Your task to perform on an android device: Go to sound settings Image 0: 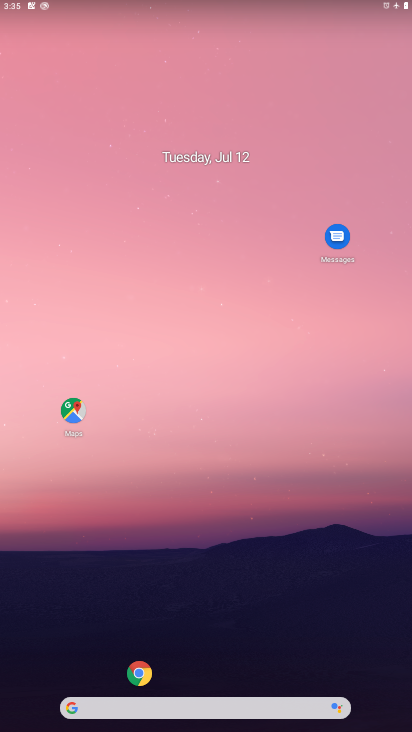
Step 0: drag from (79, 546) to (396, 108)
Your task to perform on an android device: Go to sound settings Image 1: 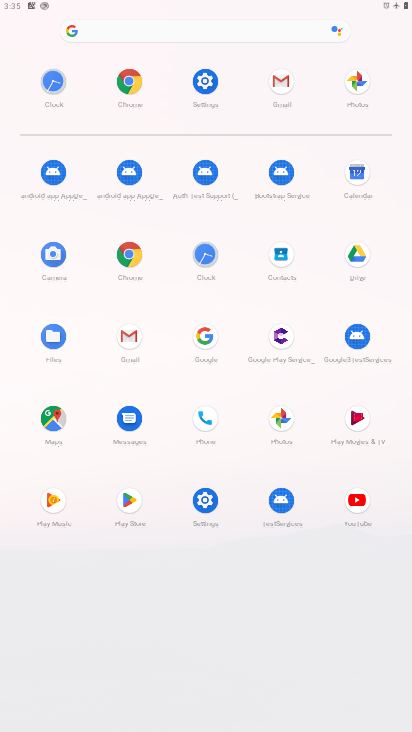
Step 1: click (194, 500)
Your task to perform on an android device: Go to sound settings Image 2: 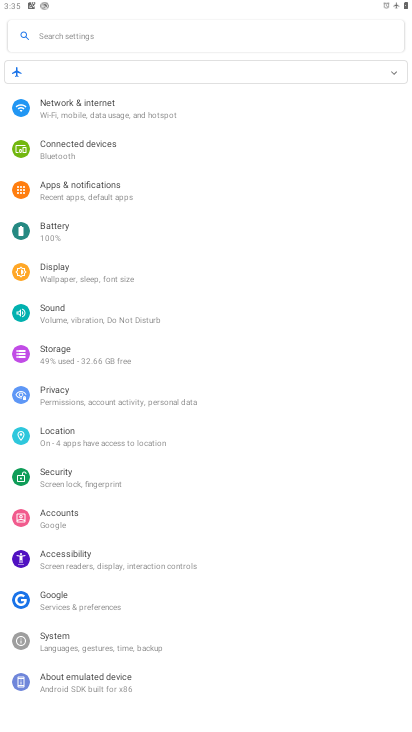
Step 2: click (70, 318)
Your task to perform on an android device: Go to sound settings Image 3: 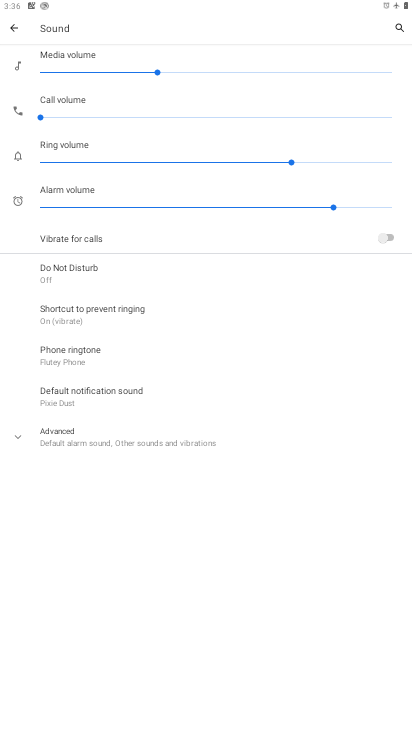
Step 3: task complete